Your task to perform on an android device: Go to network settings Image 0: 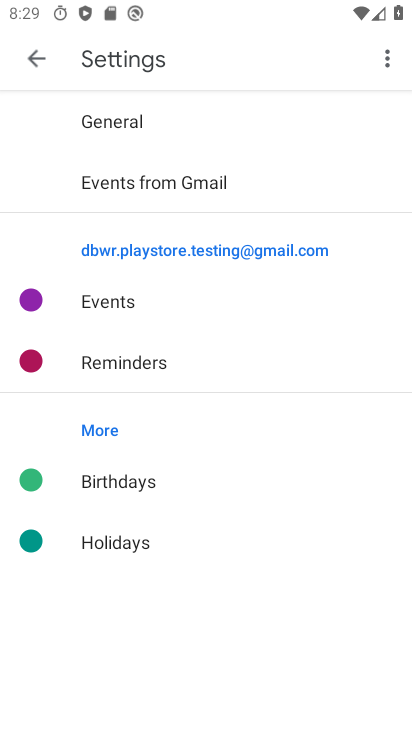
Step 0: press home button
Your task to perform on an android device: Go to network settings Image 1: 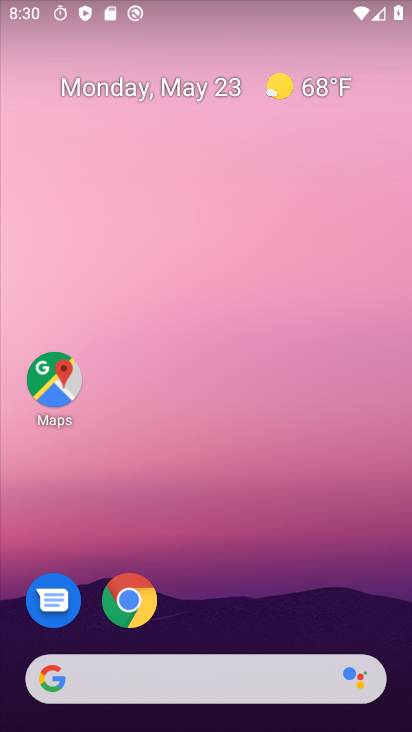
Step 1: drag from (54, 493) to (236, 196)
Your task to perform on an android device: Go to network settings Image 2: 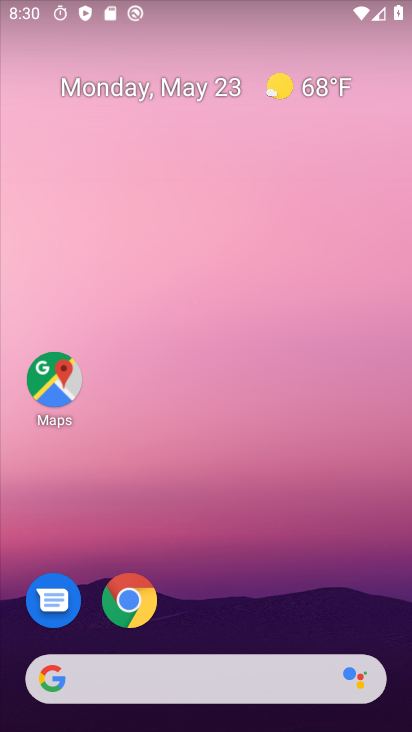
Step 2: drag from (9, 654) to (273, 105)
Your task to perform on an android device: Go to network settings Image 3: 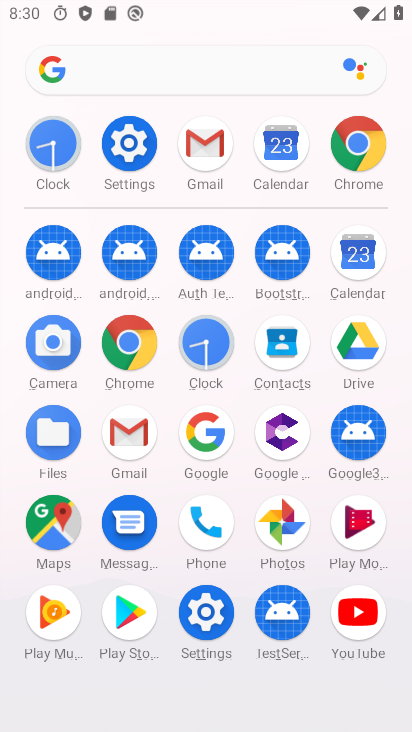
Step 3: click (126, 142)
Your task to perform on an android device: Go to network settings Image 4: 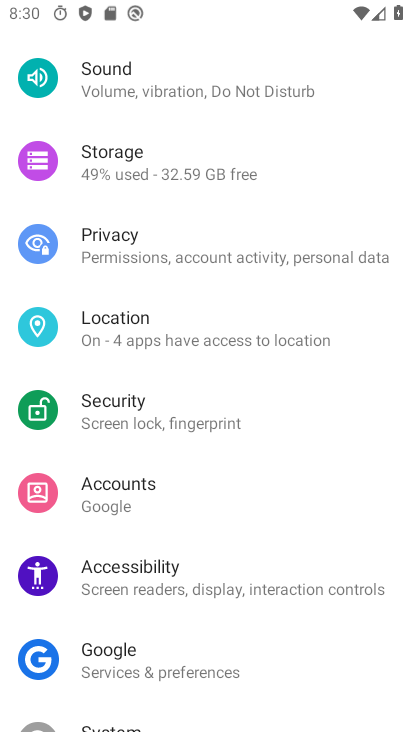
Step 4: drag from (204, 71) to (207, 527)
Your task to perform on an android device: Go to network settings Image 5: 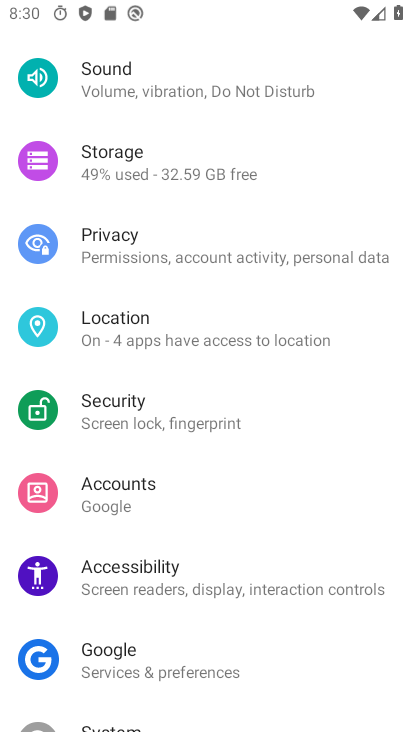
Step 5: drag from (63, 96) to (104, 690)
Your task to perform on an android device: Go to network settings Image 6: 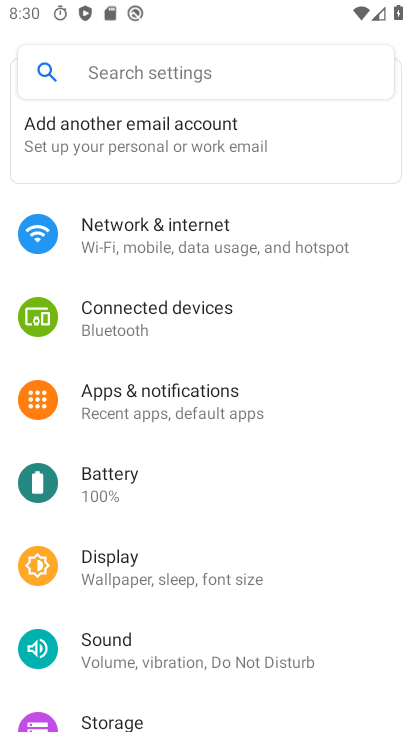
Step 6: click (223, 238)
Your task to perform on an android device: Go to network settings Image 7: 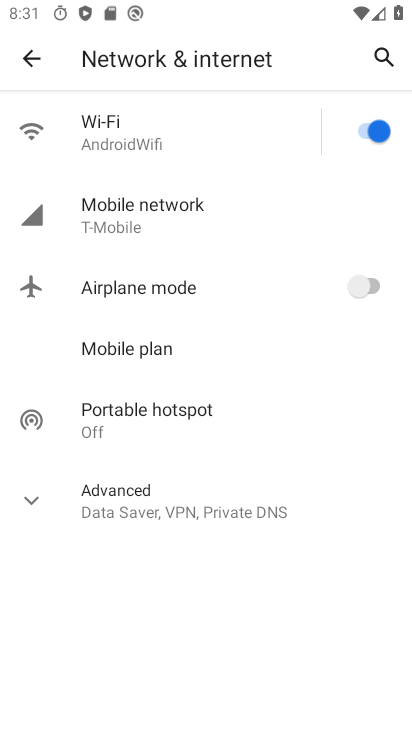
Step 7: click (196, 203)
Your task to perform on an android device: Go to network settings Image 8: 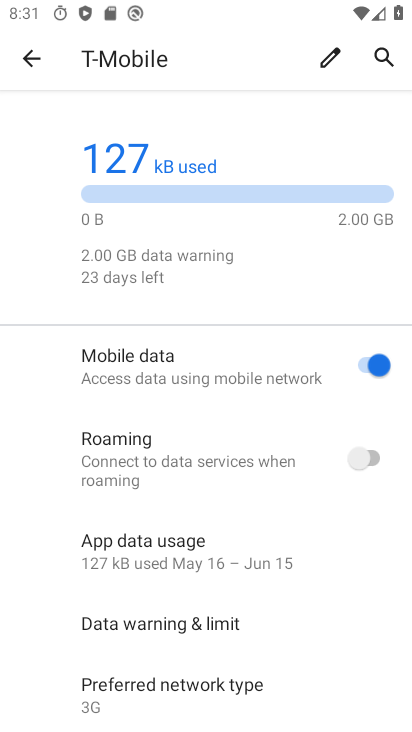
Step 8: task complete